Your task to perform on an android device: clear all cookies in the chrome app Image 0: 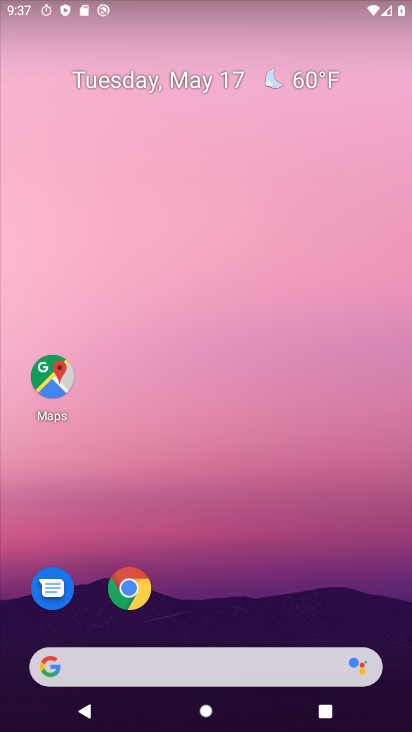
Step 0: drag from (293, 590) to (241, 150)
Your task to perform on an android device: clear all cookies in the chrome app Image 1: 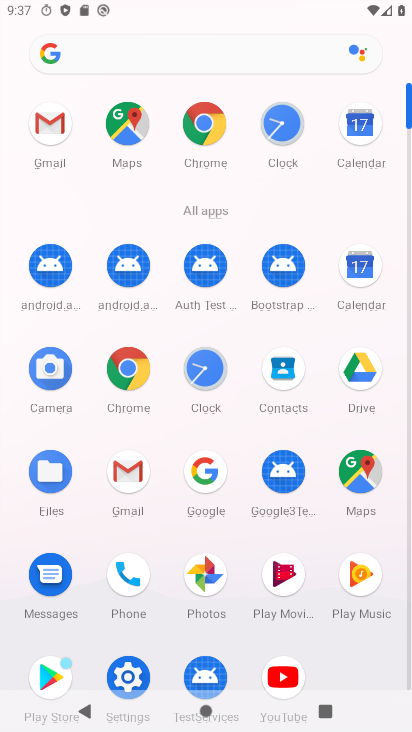
Step 1: click (199, 121)
Your task to perform on an android device: clear all cookies in the chrome app Image 2: 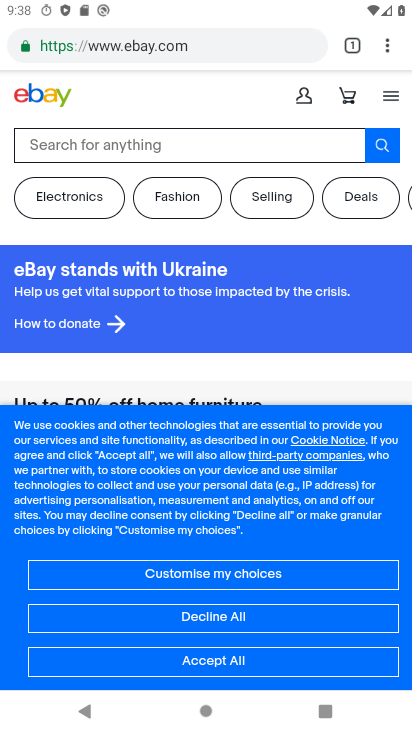
Step 2: click (386, 43)
Your task to perform on an android device: clear all cookies in the chrome app Image 3: 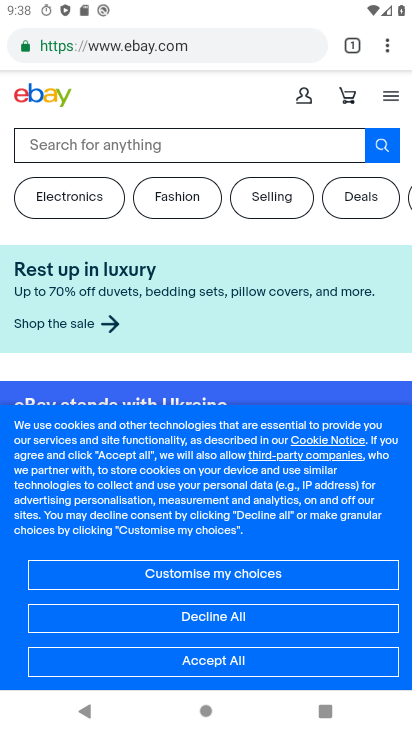
Step 3: drag from (386, 48) to (219, 556)
Your task to perform on an android device: clear all cookies in the chrome app Image 4: 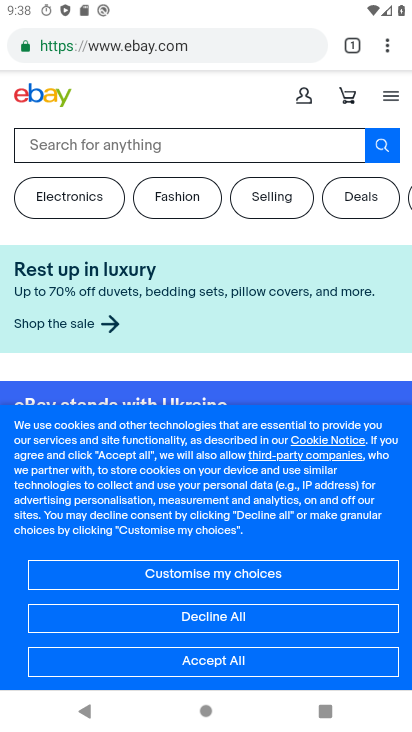
Step 4: click (234, 550)
Your task to perform on an android device: clear all cookies in the chrome app Image 5: 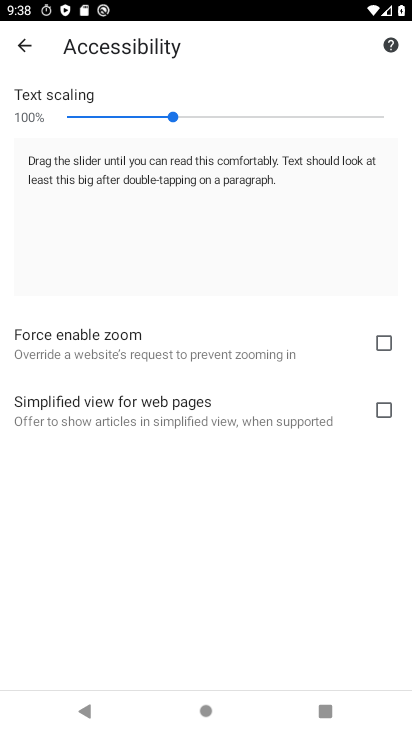
Step 5: click (25, 41)
Your task to perform on an android device: clear all cookies in the chrome app Image 6: 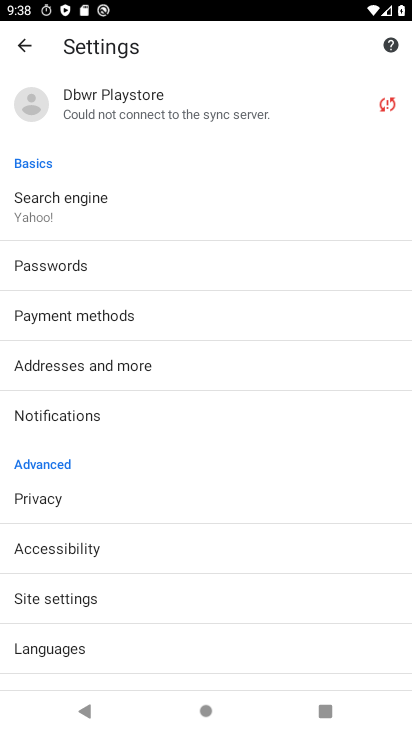
Step 6: click (44, 607)
Your task to perform on an android device: clear all cookies in the chrome app Image 7: 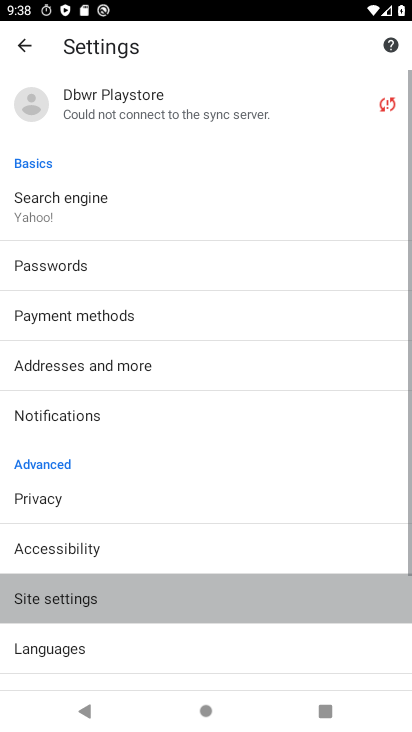
Step 7: click (40, 603)
Your task to perform on an android device: clear all cookies in the chrome app Image 8: 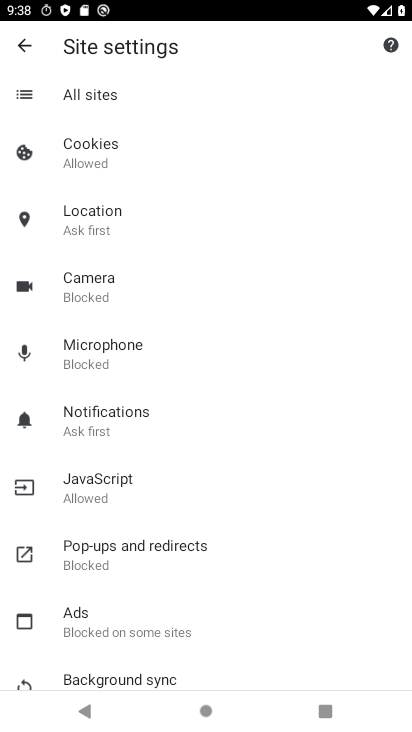
Step 8: click (87, 149)
Your task to perform on an android device: clear all cookies in the chrome app Image 9: 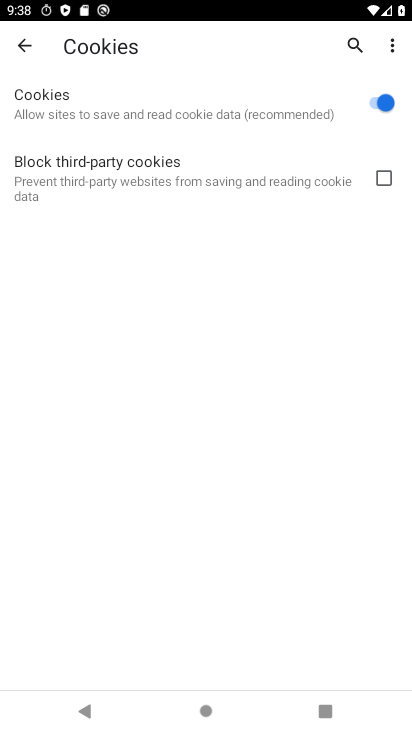
Step 9: task complete